Your task to perform on an android device: Open the stopwatch Image 0: 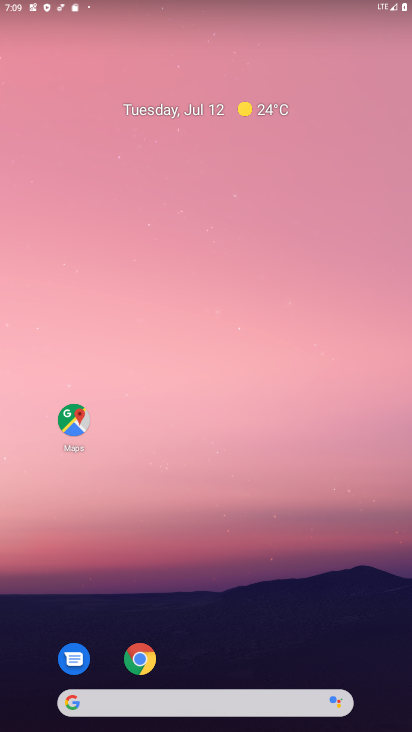
Step 0: drag from (389, 649) to (290, 0)
Your task to perform on an android device: Open the stopwatch Image 1: 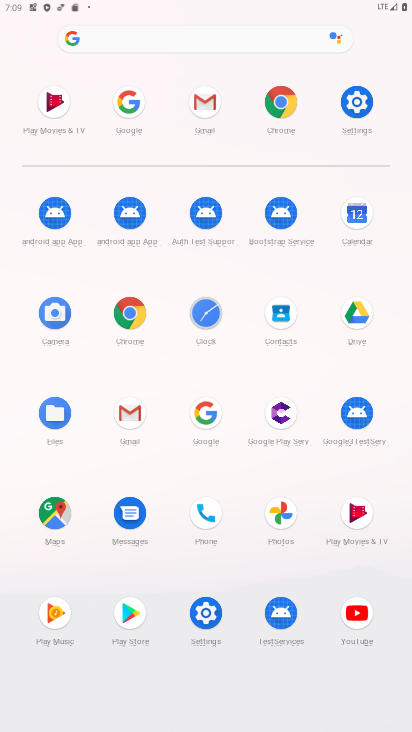
Step 1: click (214, 313)
Your task to perform on an android device: Open the stopwatch Image 2: 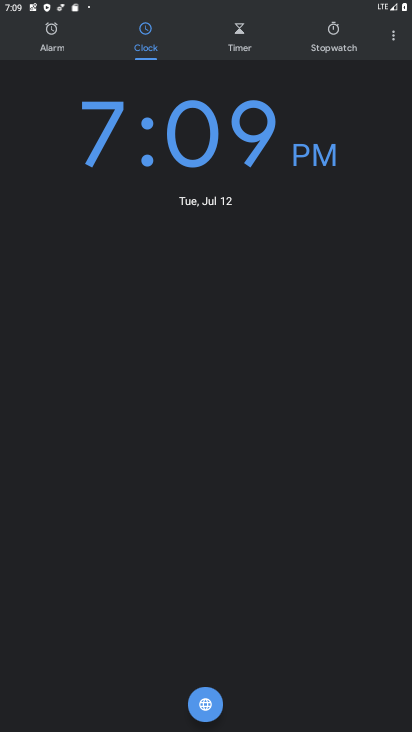
Step 2: click (325, 28)
Your task to perform on an android device: Open the stopwatch Image 3: 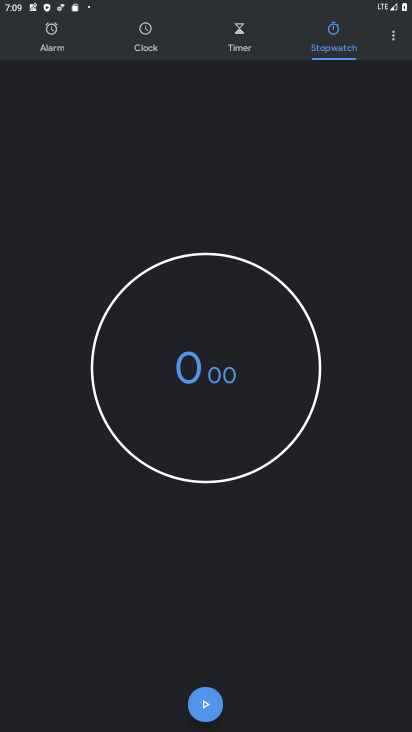
Step 3: task complete